Your task to perform on an android device: Open Wikipedia Image 0: 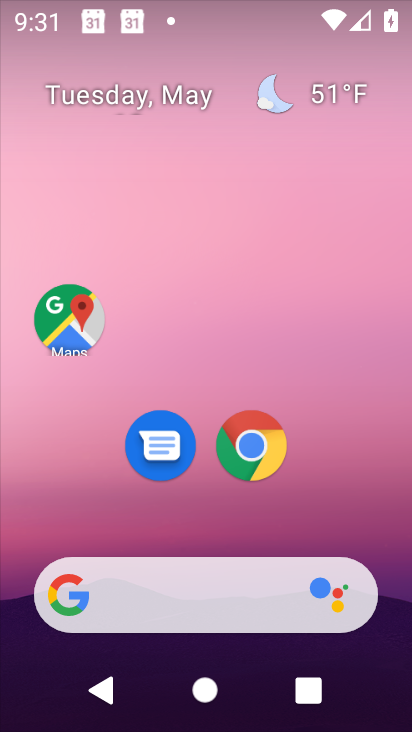
Step 0: drag from (198, 571) to (183, 103)
Your task to perform on an android device: Open Wikipedia Image 1: 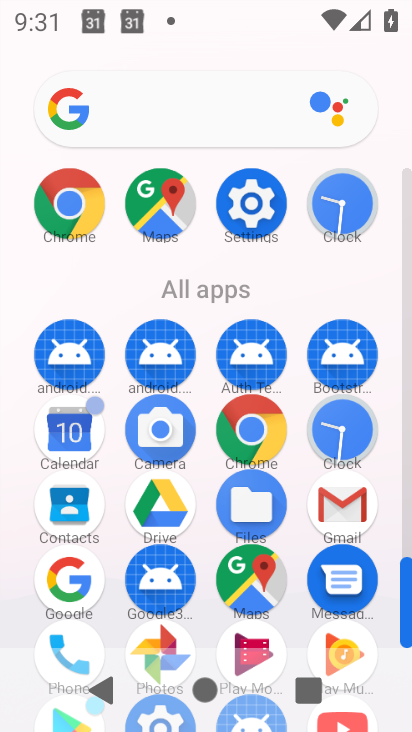
Step 1: click (77, 214)
Your task to perform on an android device: Open Wikipedia Image 2: 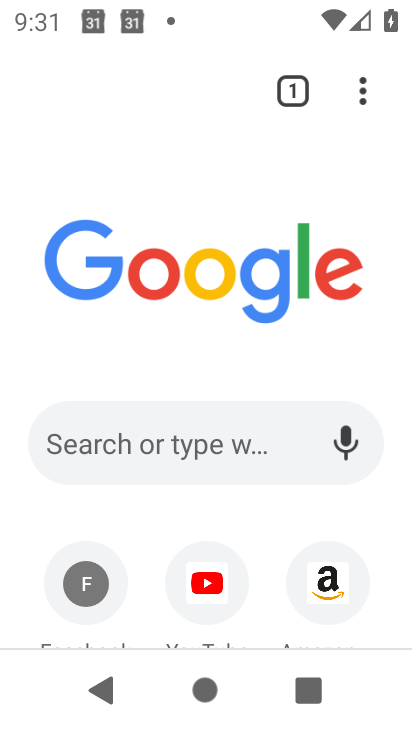
Step 2: drag from (162, 568) to (133, 158)
Your task to perform on an android device: Open Wikipedia Image 3: 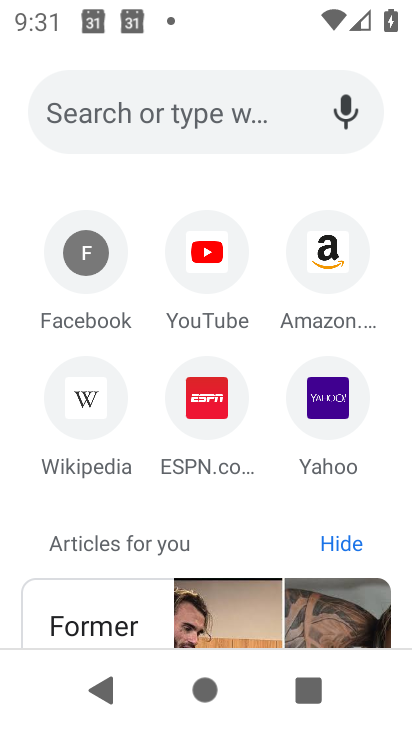
Step 3: click (107, 417)
Your task to perform on an android device: Open Wikipedia Image 4: 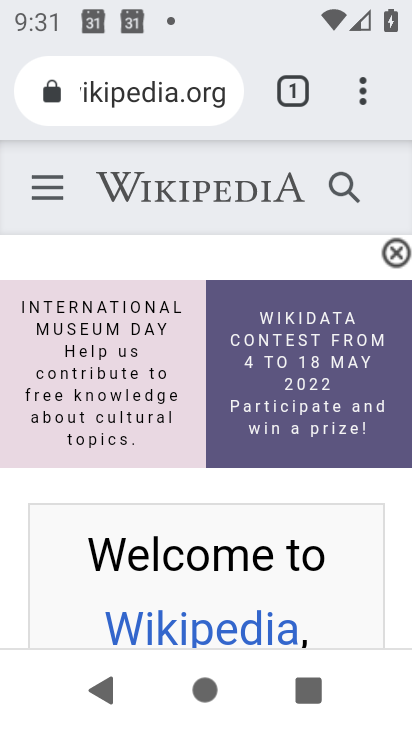
Step 4: task complete